Your task to perform on an android device: turn off notifications in google photos Image 0: 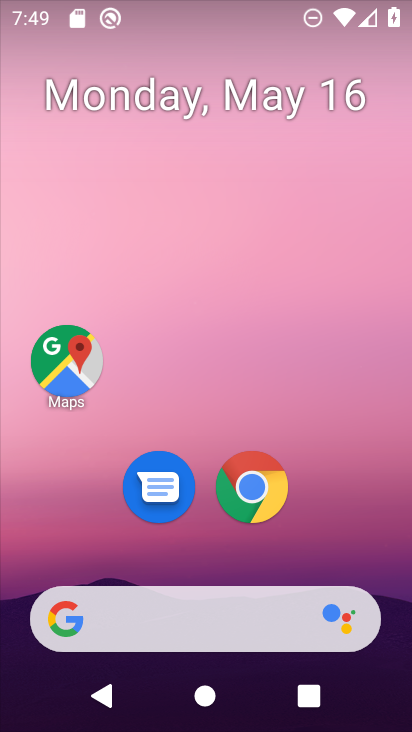
Step 0: click (49, 367)
Your task to perform on an android device: turn off notifications in google photos Image 1: 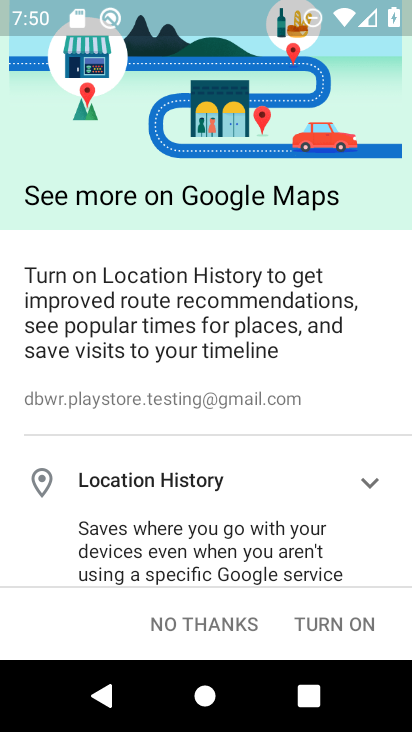
Step 1: click (349, 624)
Your task to perform on an android device: turn off notifications in google photos Image 2: 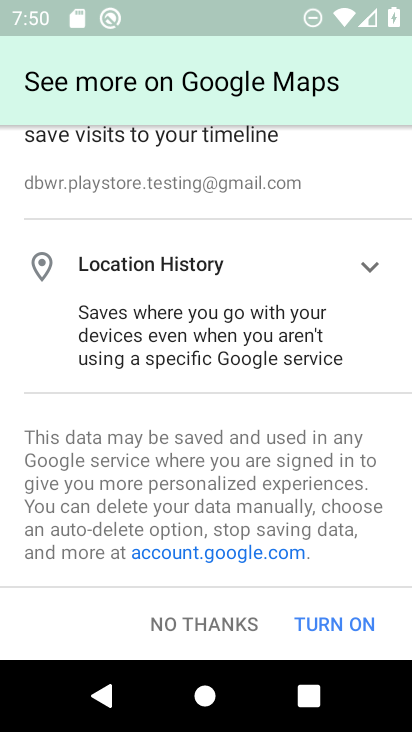
Step 2: click (352, 624)
Your task to perform on an android device: turn off notifications in google photos Image 3: 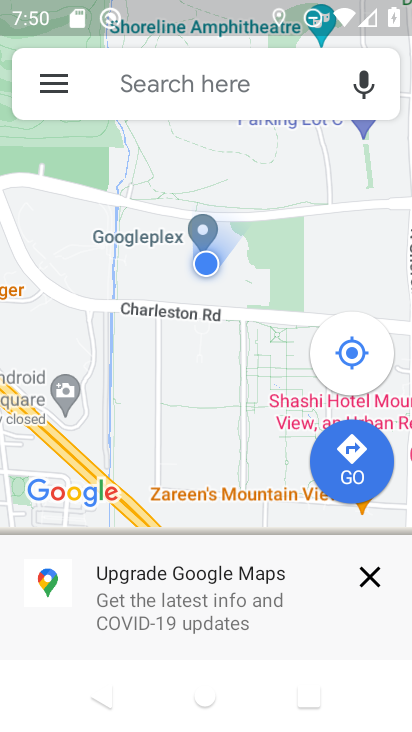
Step 3: task complete